Your task to perform on an android device: remove spam from my inbox in the gmail app Image 0: 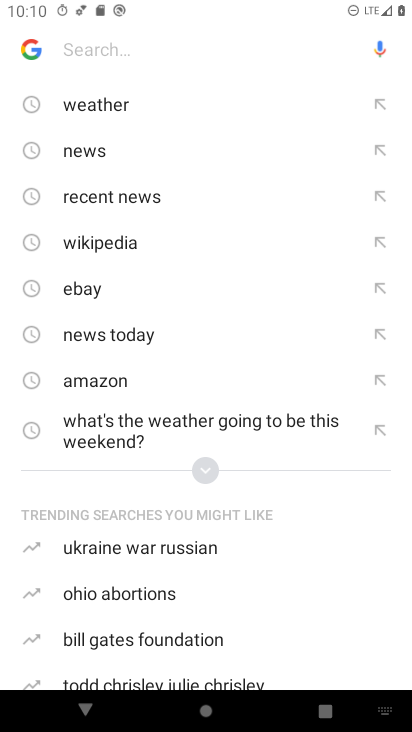
Step 0: press home button
Your task to perform on an android device: remove spam from my inbox in the gmail app Image 1: 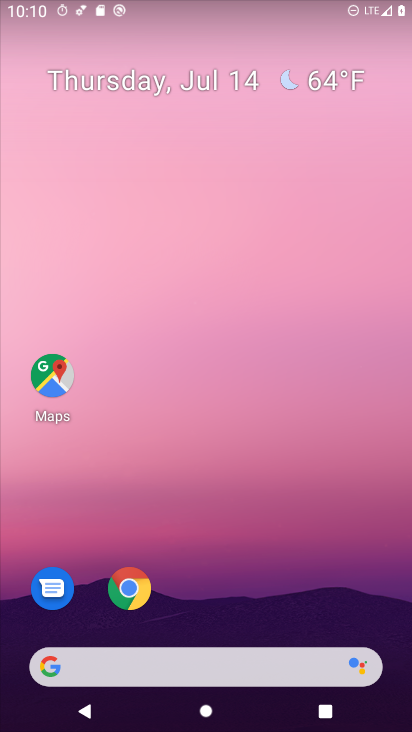
Step 1: drag from (324, 565) to (373, 58)
Your task to perform on an android device: remove spam from my inbox in the gmail app Image 2: 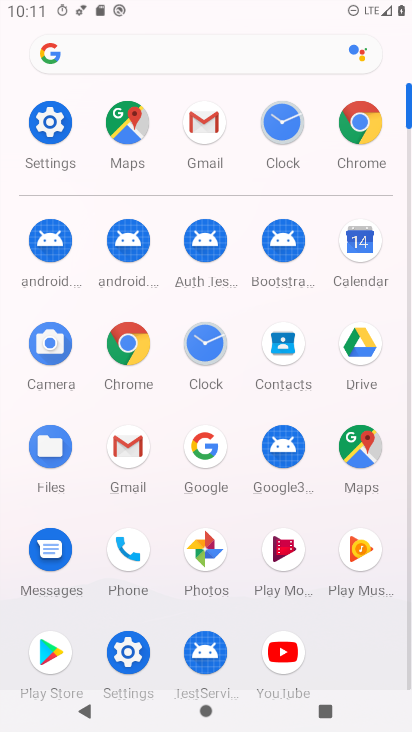
Step 2: click (201, 131)
Your task to perform on an android device: remove spam from my inbox in the gmail app Image 3: 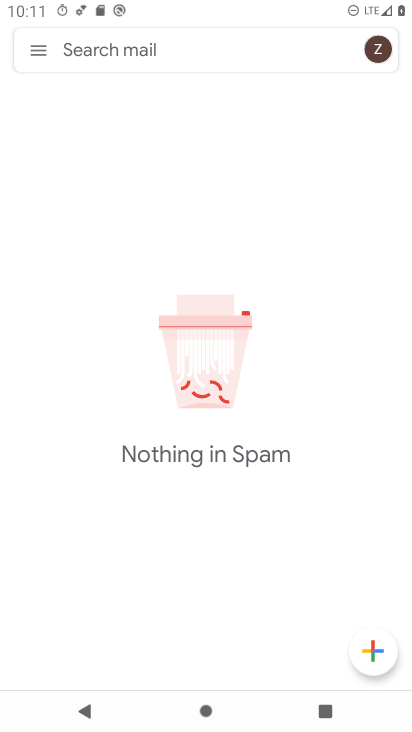
Step 3: click (35, 52)
Your task to perform on an android device: remove spam from my inbox in the gmail app Image 4: 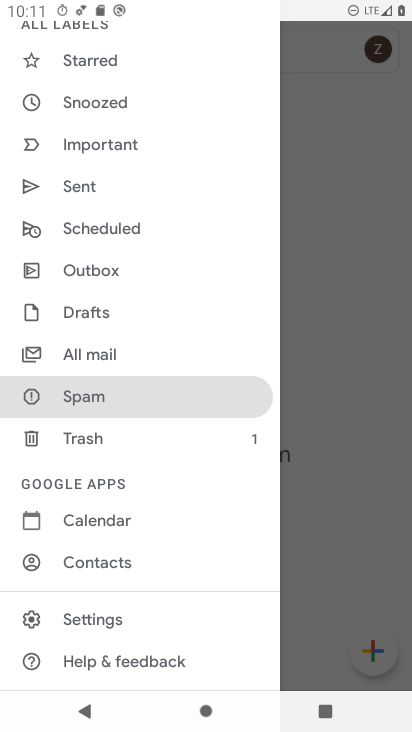
Step 4: click (181, 391)
Your task to perform on an android device: remove spam from my inbox in the gmail app Image 5: 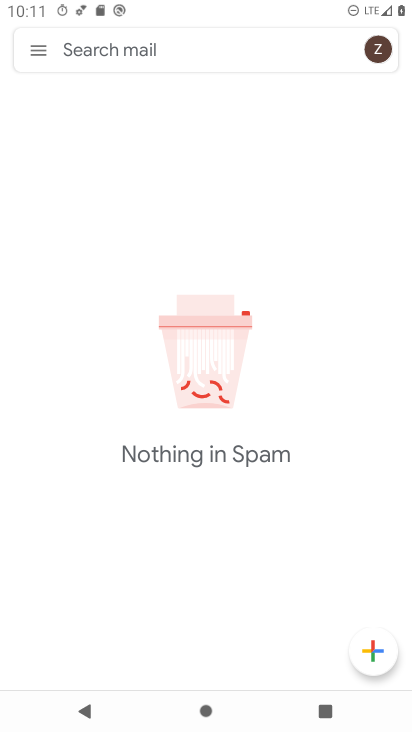
Step 5: task complete